Your task to perform on an android device: Search for pizza restaurants on Maps Image 0: 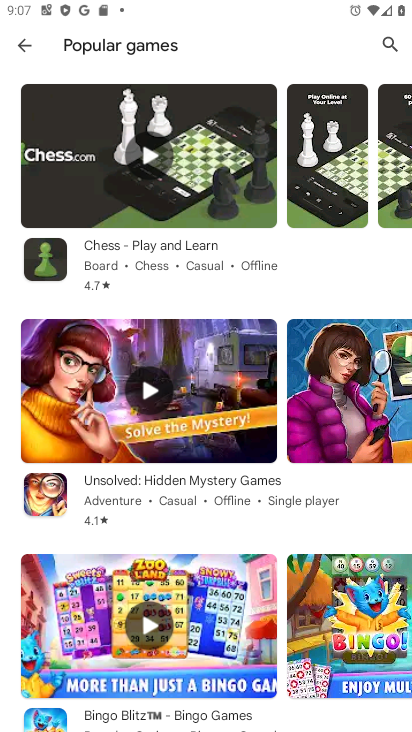
Step 0: press home button
Your task to perform on an android device: Search for pizza restaurants on Maps Image 1: 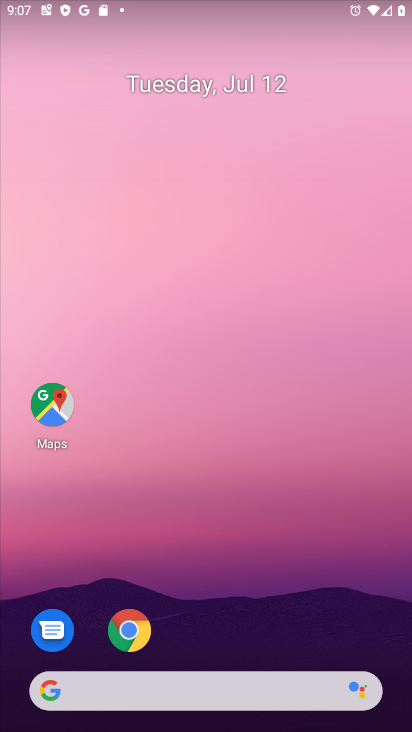
Step 1: drag from (216, 638) to (228, 103)
Your task to perform on an android device: Search for pizza restaurants on Maps Image 2: 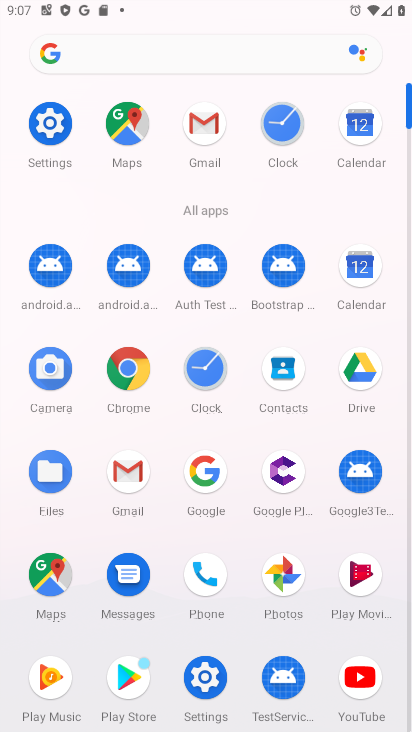
Step 2: click (54, 583)
Your task to perform on an android device: Search for pizza restaurants on Maps Image 3: 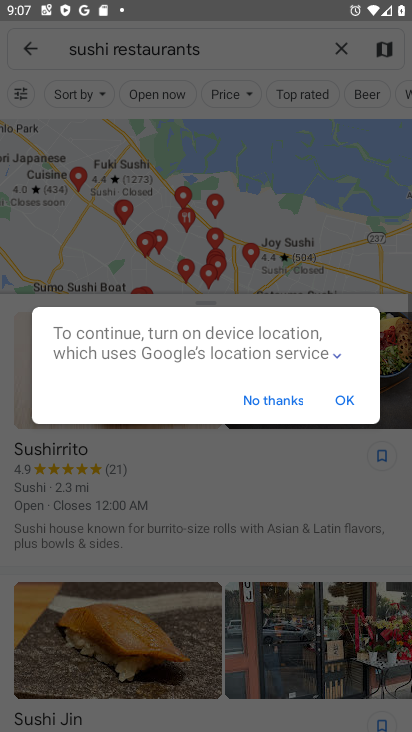
Step 3: click (340, 48)
Your task to perform on an android device: Search for pizza restaurants on Maps Image 4: 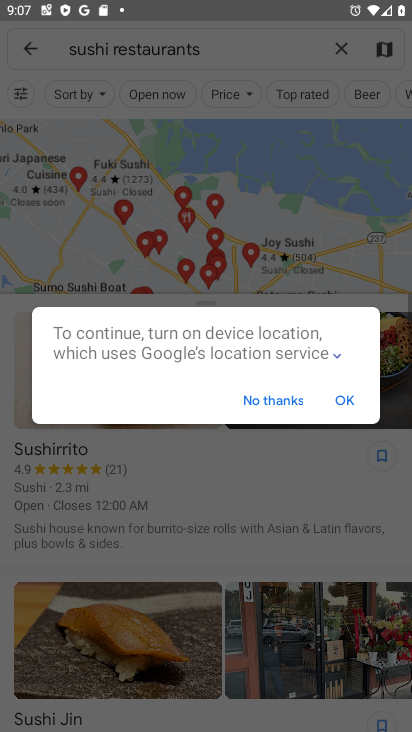
Step 4: click (284, 400)
Your task to perform on an android device: Search for pizza restaurants on Maps Image 5: 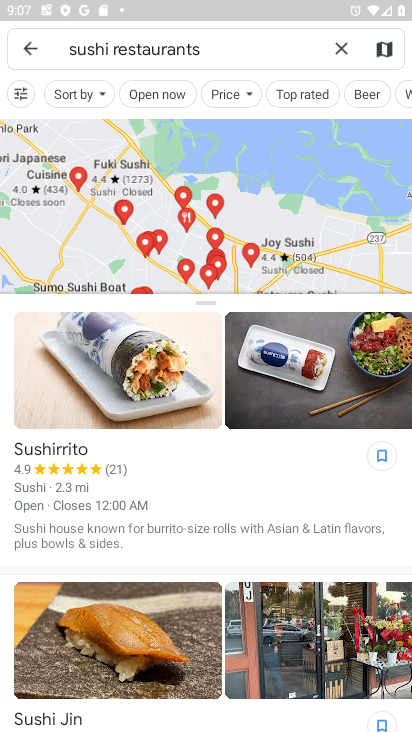
Step 5: click (338, 53)
Your task to perform on an android device: Search for pizza restaurants on Maps Image 6: 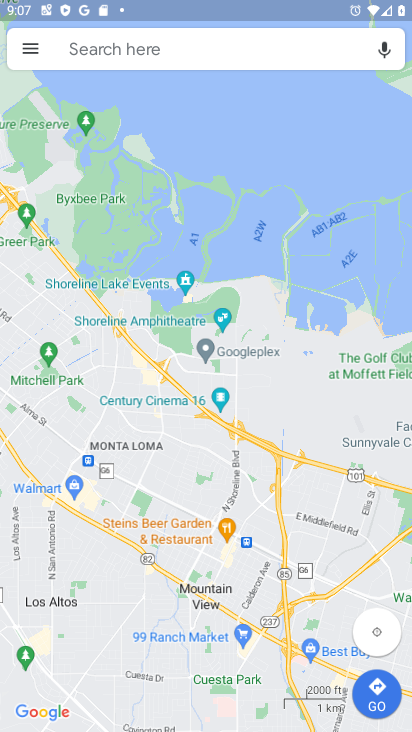
Step 6: click (205, 49)
Your task to perform on an android device: Search for pizza restaurants on Maps Image 7: 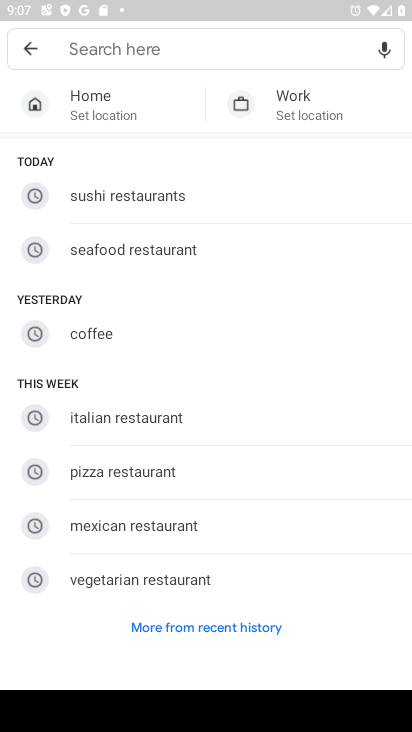
Step 7: click (92, 471)
Your task to perform on an android device: Search for pizza restaurants on Maps Image 8: 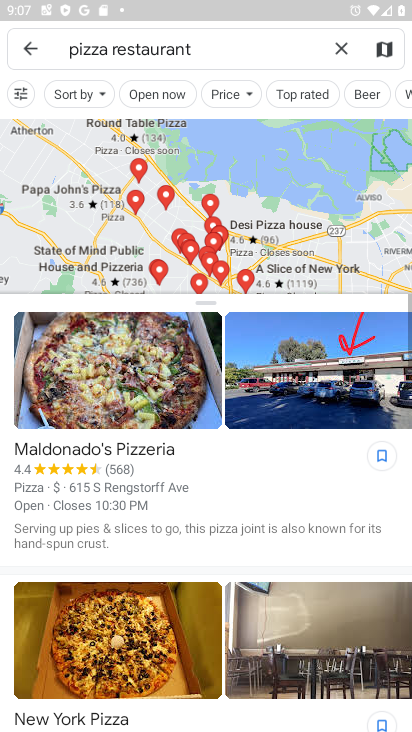
Step 8: task complete